Your task to perform on an android device: change the clock display to analog Image 0: 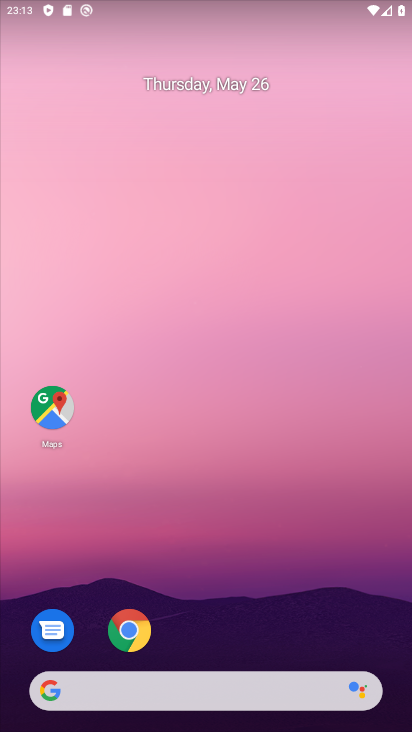
Step 0: drag from (237, 605) to (217, 104)
Your task to perform on an android device: change the clock display to analog Image 1: 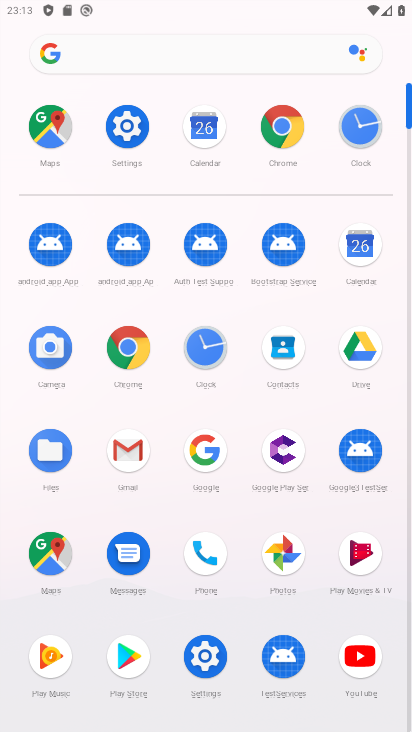
Step 1: click (360, 124)
Your task to perform on an android device: change the clock display to analog Image 2: 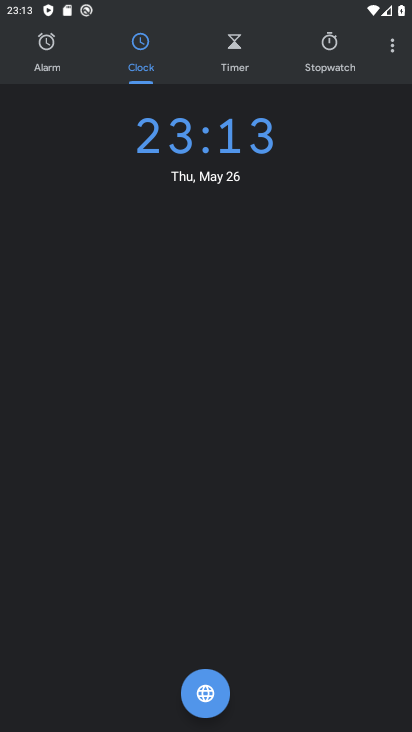
Step 2: click (395, 45)
Your task to perform on an android device: change the clock display to analog Image 3: 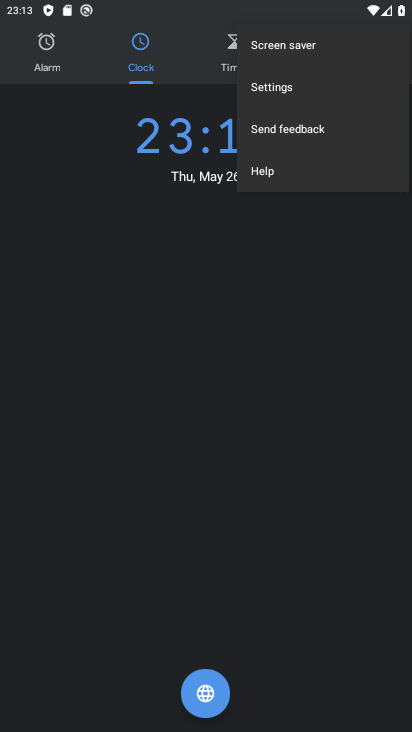
Step 3: click (286, 90)
Your task to perform on an android device: change the clock display to analog Image 4: 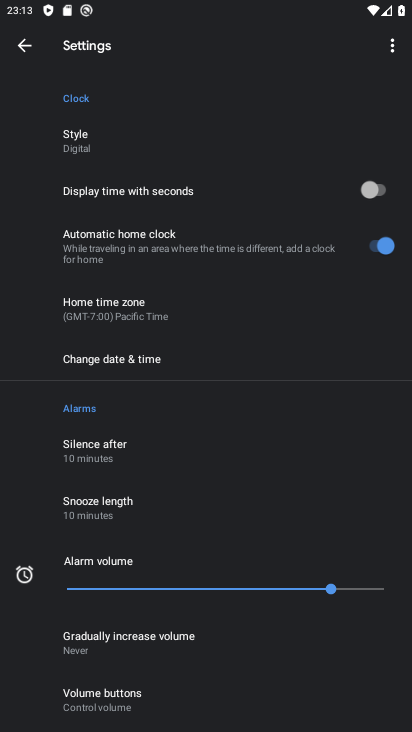
Step 4: click (99, 145)
Your task to perform on an android device: change the clock display to analog Image 5: 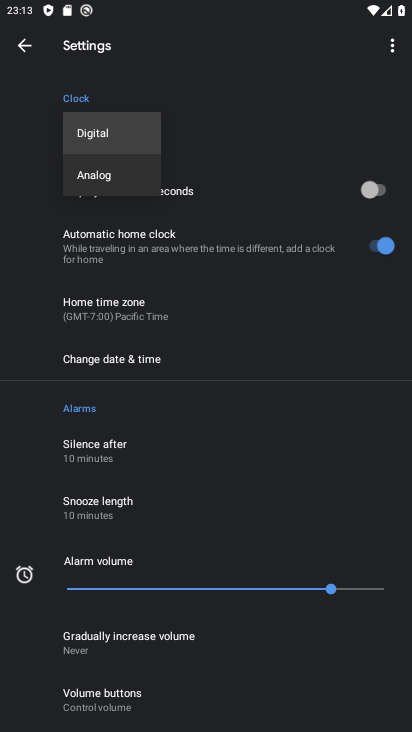
Step 5: click (104, 177)
Your task to perform on an android device: change the clock display to analog Image 6: 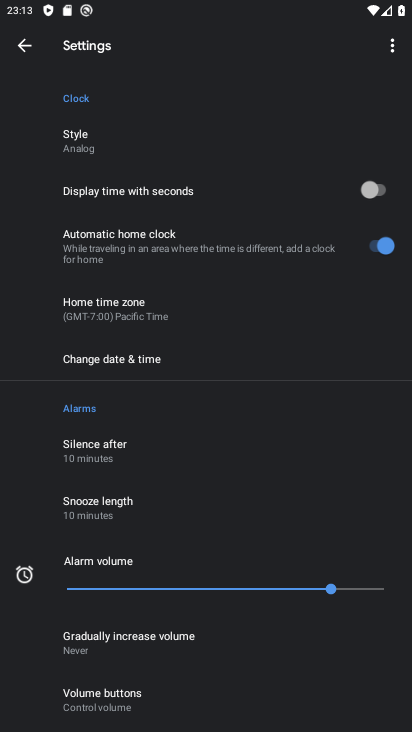
Step 6: task complete